Your task to perform on an android device: See recent photos Image 0: 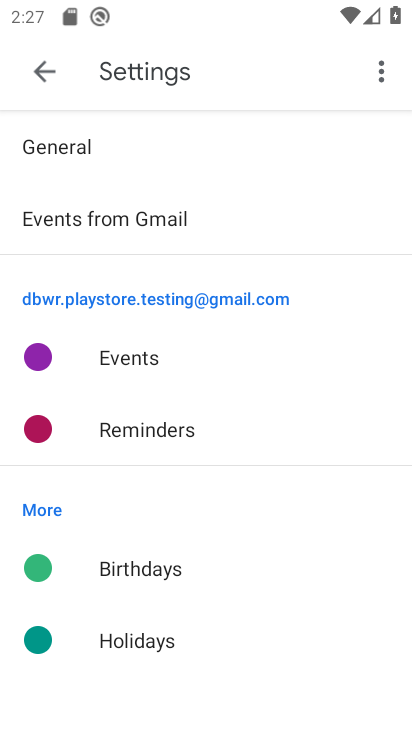
Step 0: press home button
Your task to perform on an android device: See recent photos Image 1: 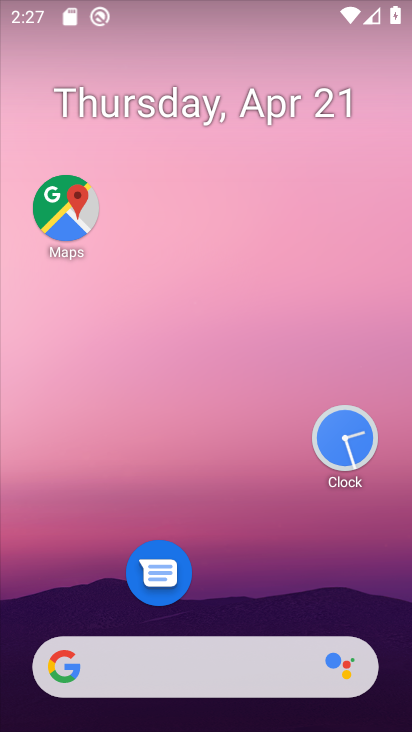
Step 1: drag from (15, 647) to (196, 334)
Your task to perform on an android device: See recent photos Image 2: 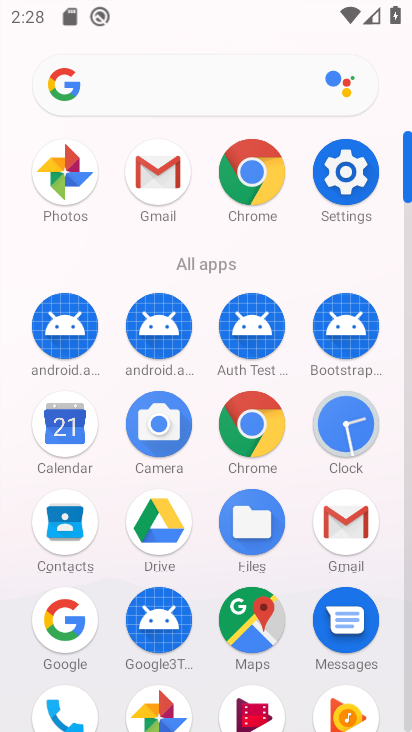
Step 2: click (152, 704)
Your task to perform on an android device: See recent photos Image 3: 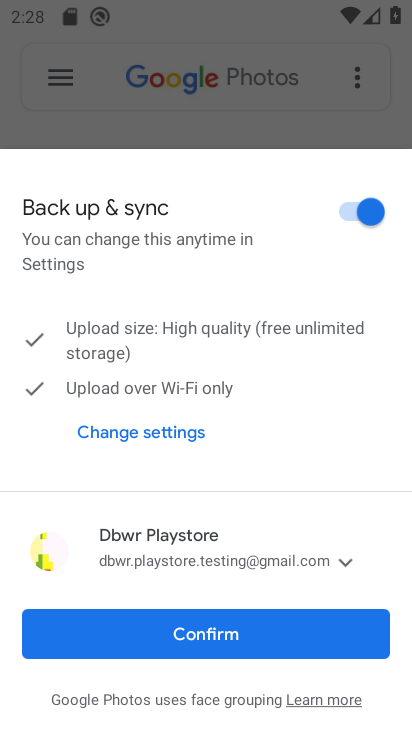
Step 3: click (243, 629)
Your task to perform on an android device: See recent photos Image 4: 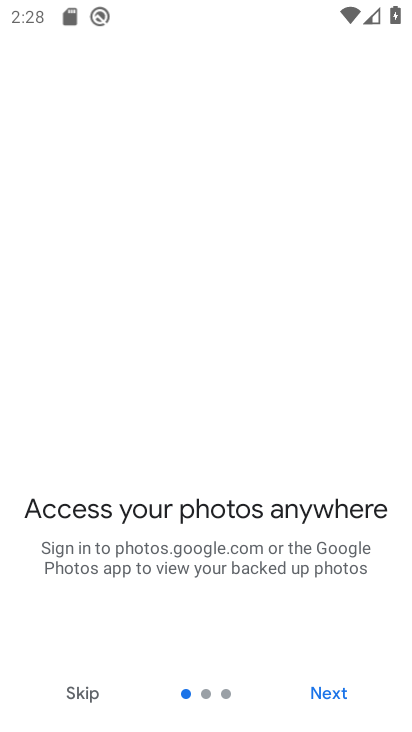
Step 4: click (331, 689)
Your task to perform on an android device: See recent photos Image 5: 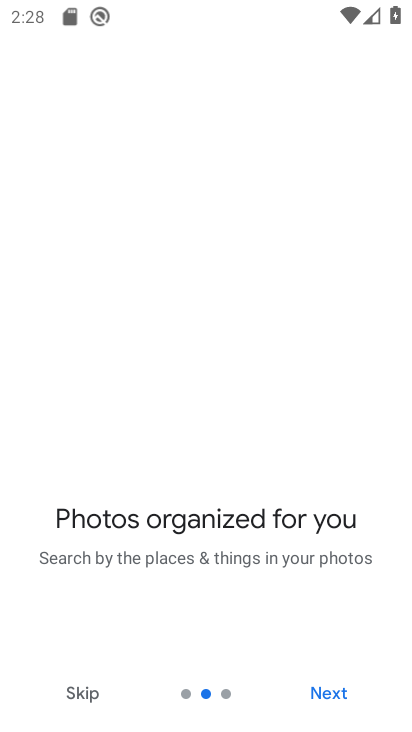
Step 5: click (331, 689)
Your task to perform on an android device: See recent photos Image 6: 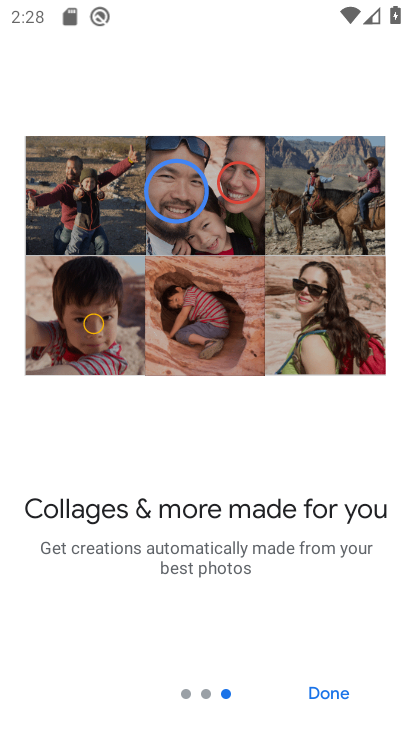
Step 6: click (331, 689)
Your task to perform on an android device: See recent photos Image 7: 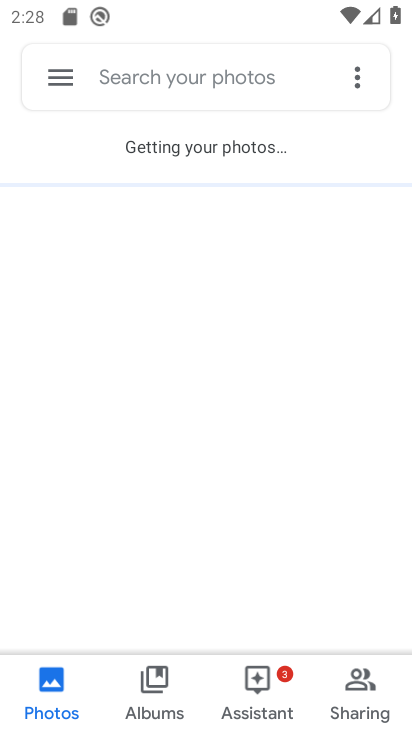
Step 7: click (333, 688)
Your task to perform on an android device: See recent photos Image 8: 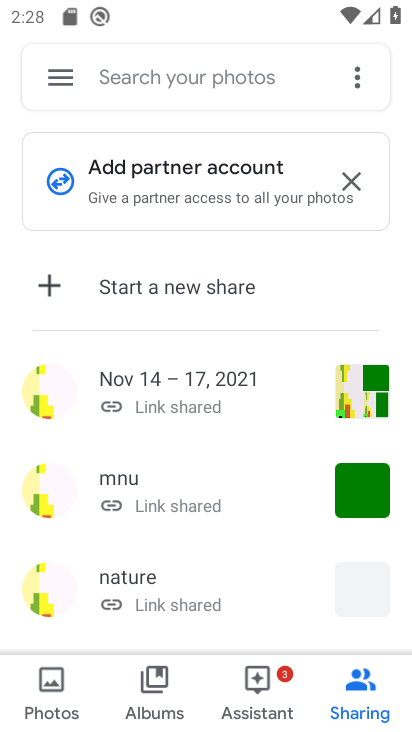
Step 8: click (41, 694)
Your task to perform on an android device: See recent photos Image 9: 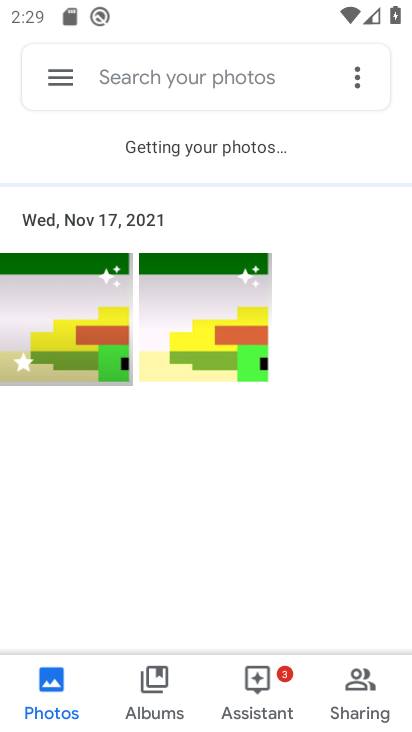
Step 9: task complete